Your task to perform on an android device: turn pop-ups off in chrome Image 0: 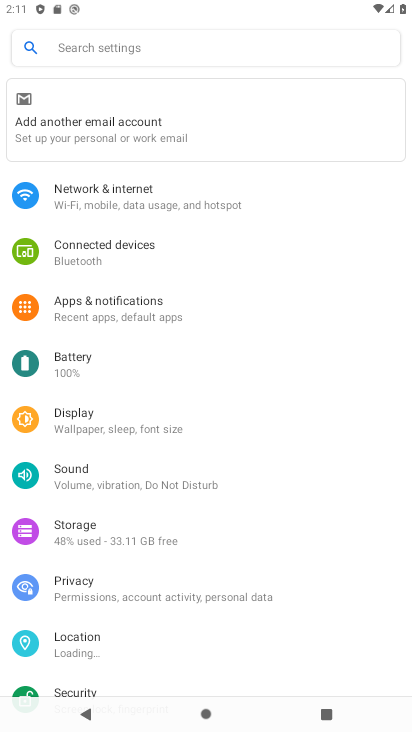
Step 0: press home button
Your task to perform on an android device: turn pop-ups off in chrome Image 1: 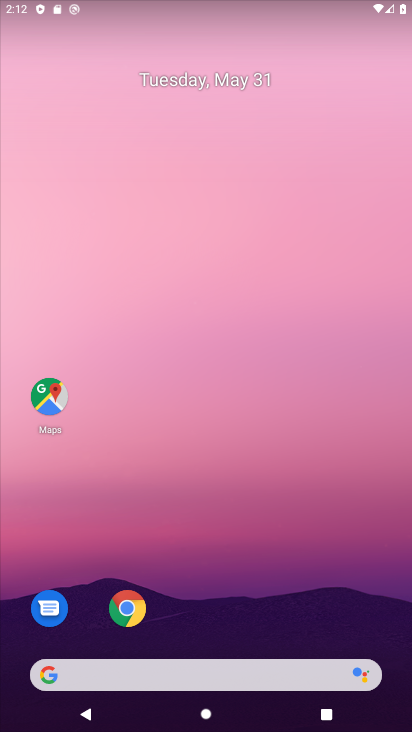
Step 1: click (128, 603)
Your task to perform on an android device: turn pop-ups off in chrome Image 2: 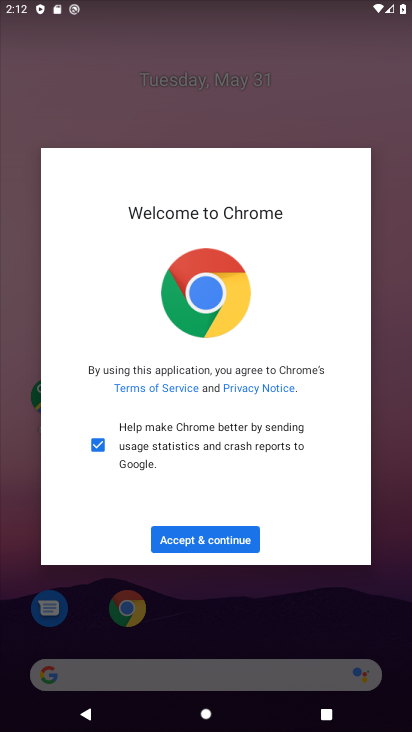
Step 2: click (177, 538)
Your task to perform on an android device: turn pop-ups off in chrome Image 3: 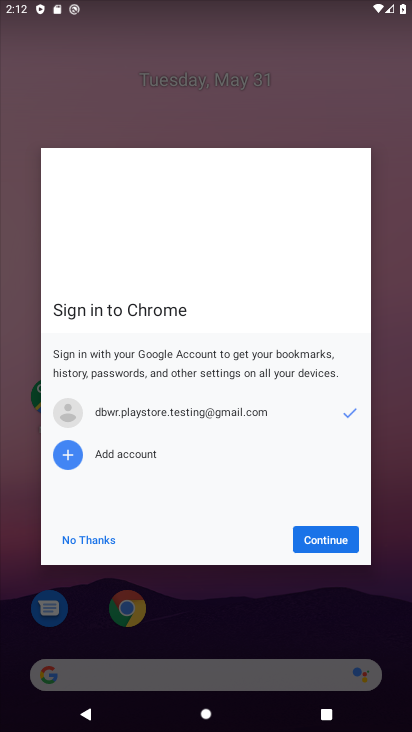
Step 3: click (332, 529)
Your task to perform on an android device: turn pop-ups off in chrome Image 4: 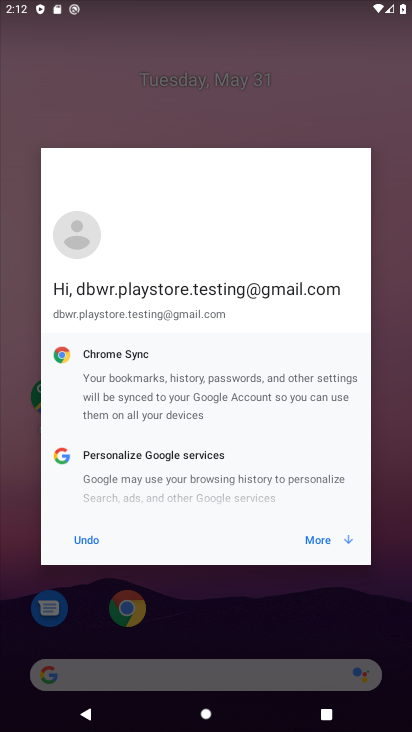
Step 4: click (332, 531)
Your task to perform on an android device: turn pop-ups off in chrome Image 5: 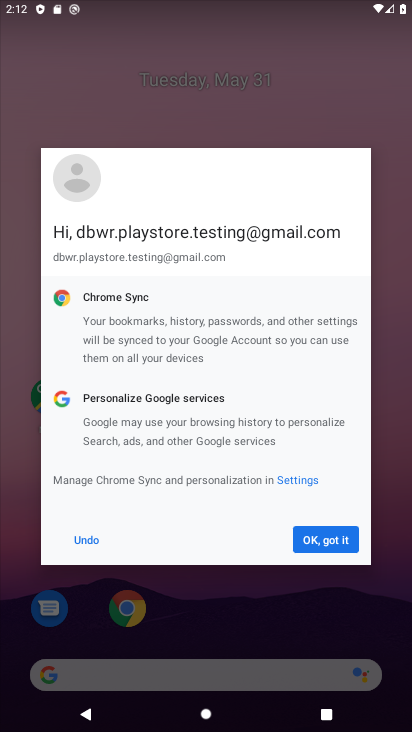
Step 5: click (331, 532)
Your task to perform on an android device: turn pop-ups off in chrome Image 6: 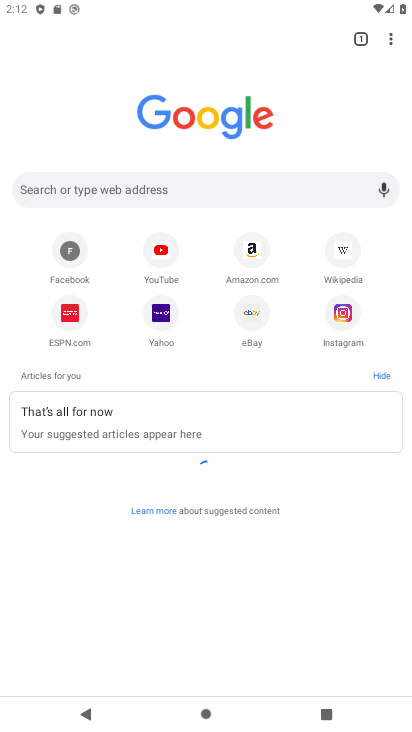
Step 6: click (400, 49)
Your task to perform on an android device: turn pop-ups off in chrome Image 7: 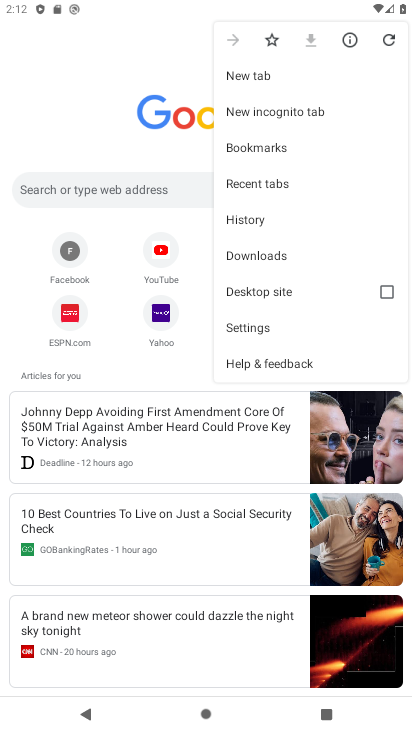
Step 7: click (260, 329)
Your task to perform on an android device: turn pop-ups off in chrome Image 8: 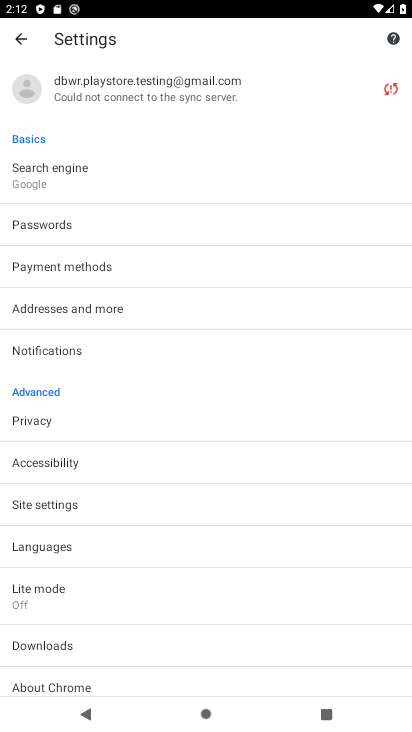
Step 8: click (74, 504)
Your task to perform on an android device: turn pop-ups off in chrome Image 9: 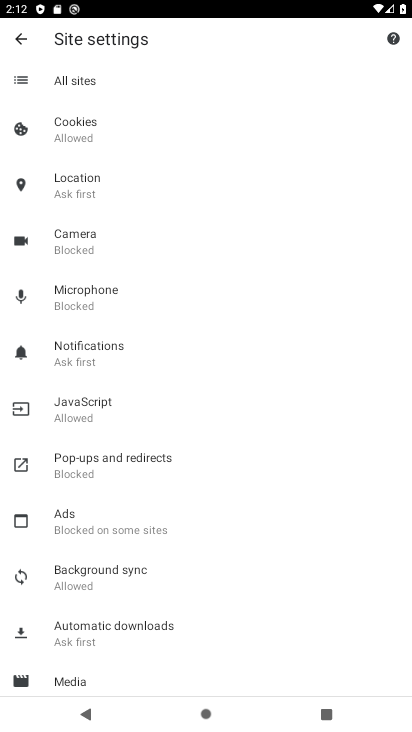
Step 9: click (81, 470)
Your task to perform on an android device: turn pop-ups off in chrome Image 10: 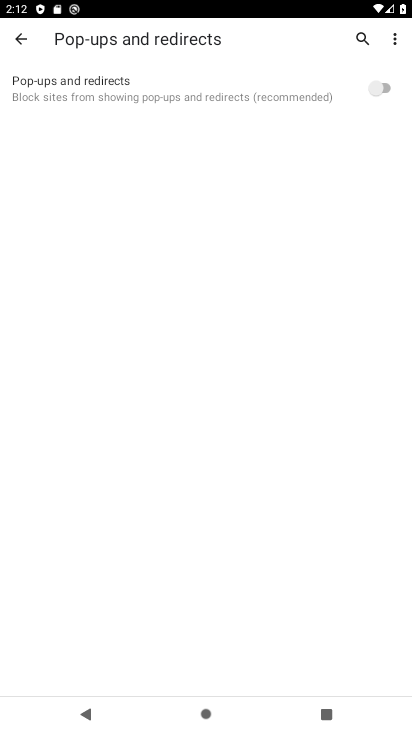
Step 10: task complete